Your task to perform on an android device: read, delete, or share a saved page in the chrome app Image 0: 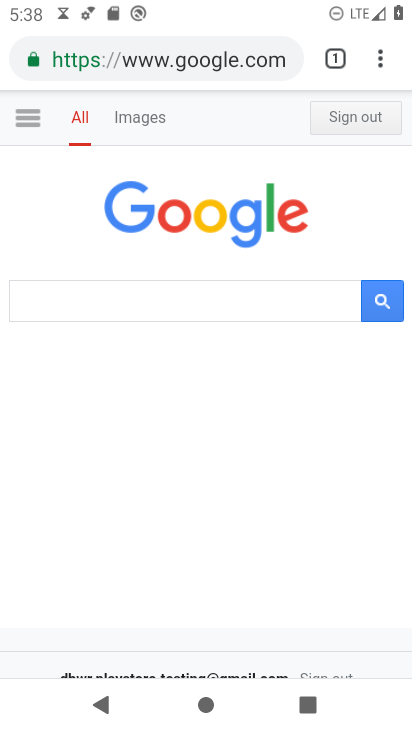
Step 0: drag from (381, 59) to (241, 380)
Your task to perform on an android device: read, delete, or share a saved page in the chrome app Image 1: 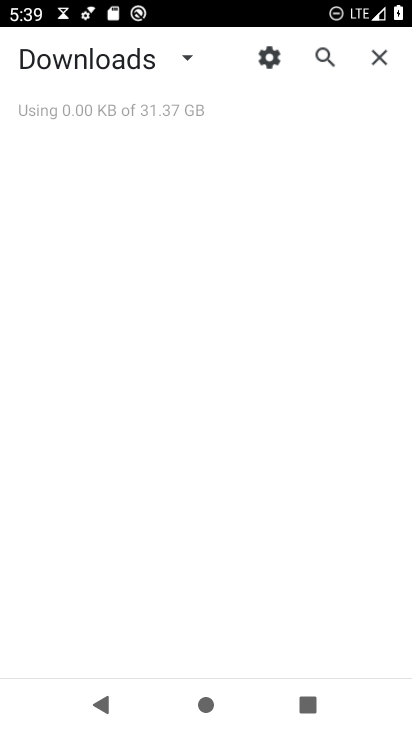
Step 1: task complete